Your task to perform on an android device: What is the news today? Image 0: 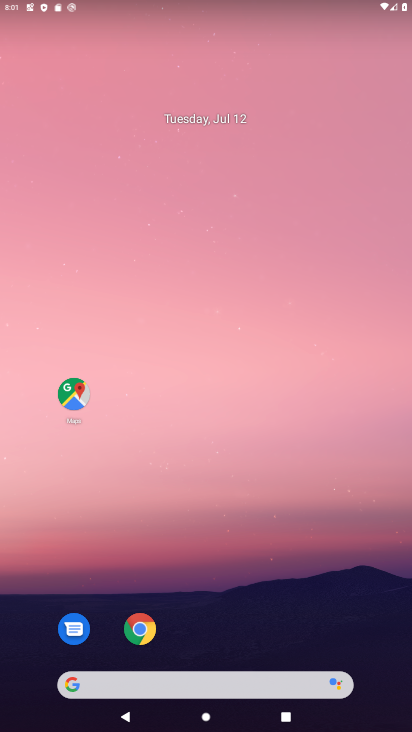
Step 0: drag from (304, 607) to (287, 208)
Your task to perform on an android device: What is the news today? Image 1: 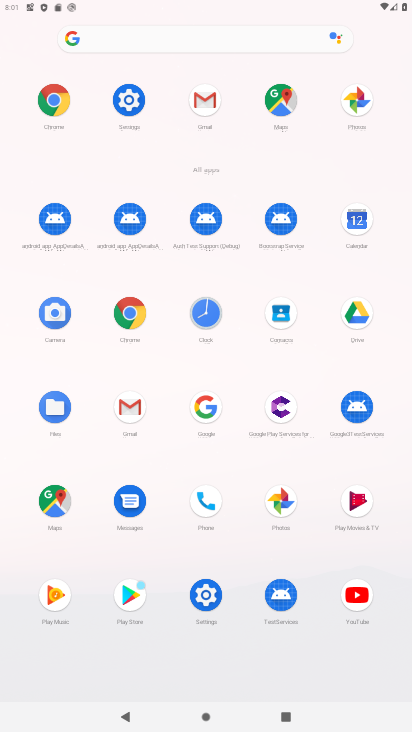
Step 1: click (44, 91)
Your task to perform on an android device: What is the news today? Image 2: 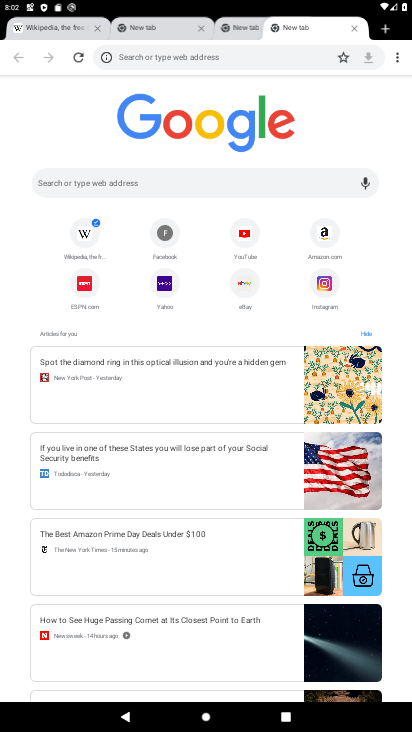
Step 2: click (198, 170)
Your task to perform on an android device: What is the news today? Image 3: 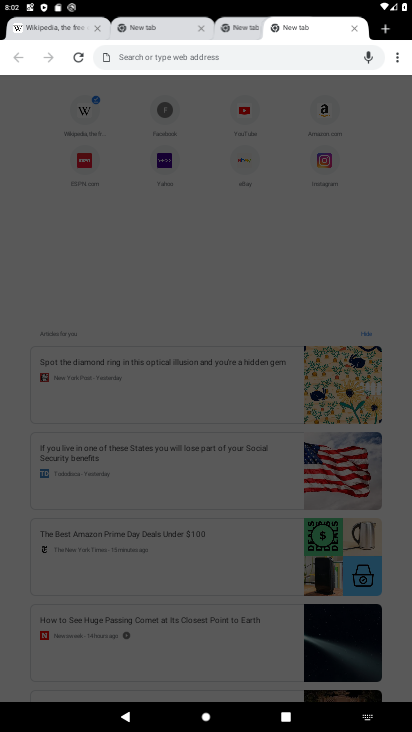
Step 3: type "What is the news today "
Your task to perform on an android device: What is the news today? Image 4: 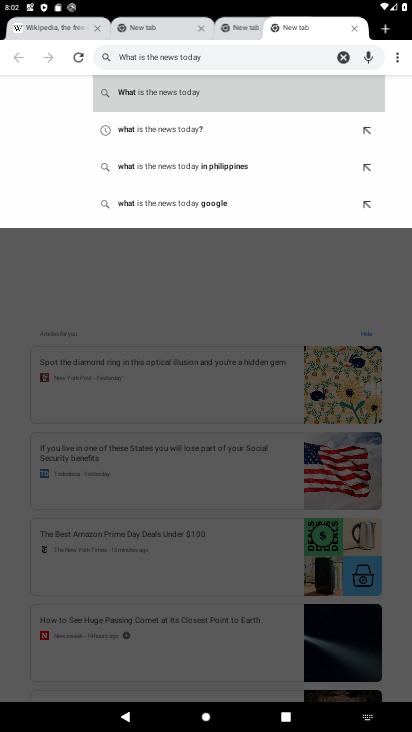
Step 4: click (256, 95)
Your task to perform on an android device: What is the news today? Image 5: 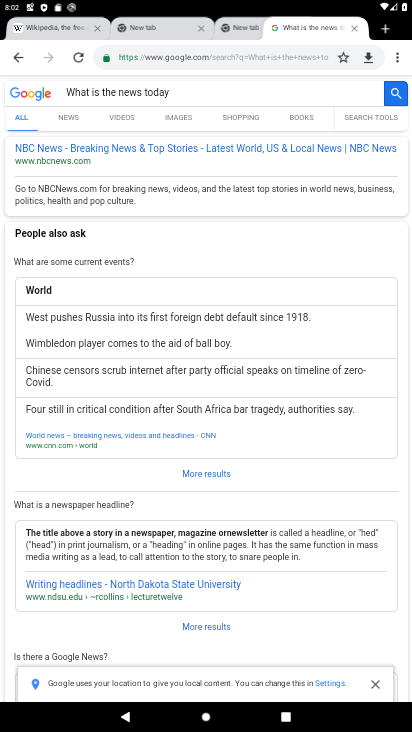
Step 5: task complete